Your task to perform on an android device: open app "Google Chat" (install if not already installed) Image 0: 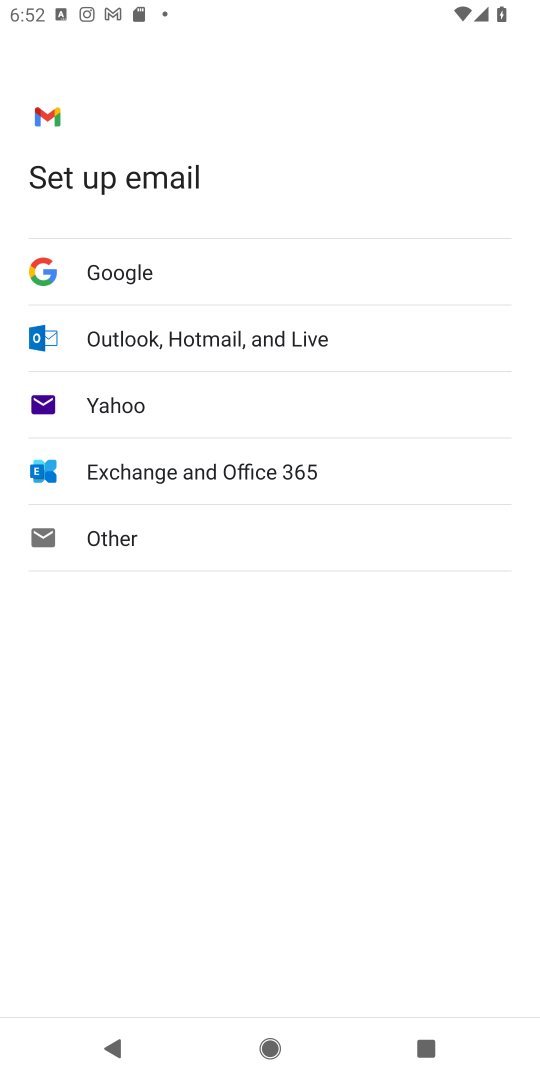
Step 0: press home button
Your task to perform on an android device: open app "Google Chat" (install if not already installed) Image 1: 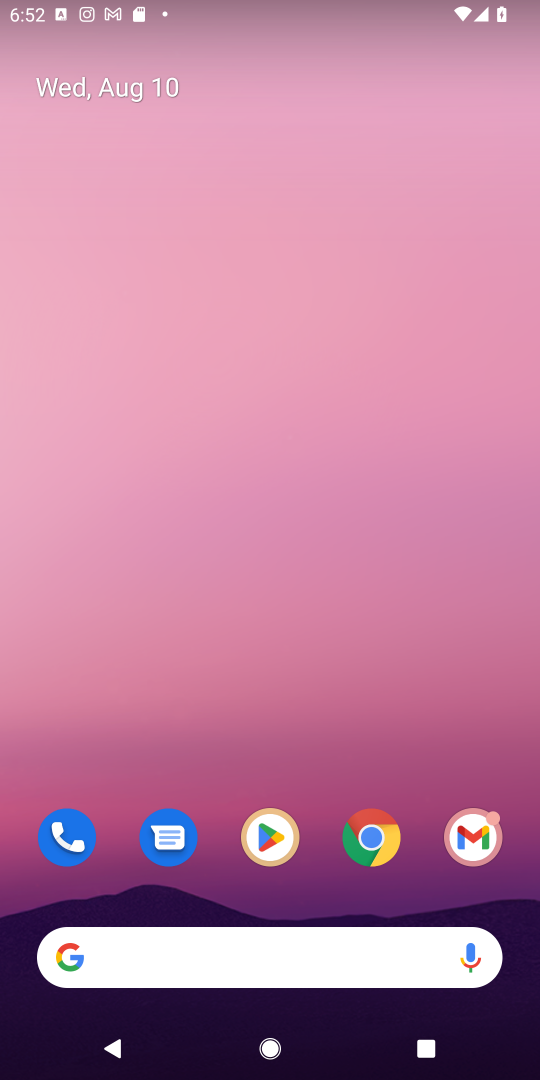
Step 1: click (271, 833)
Your task to perform on an android device: open app "Google Chat" (install if not already installed) Image 2: 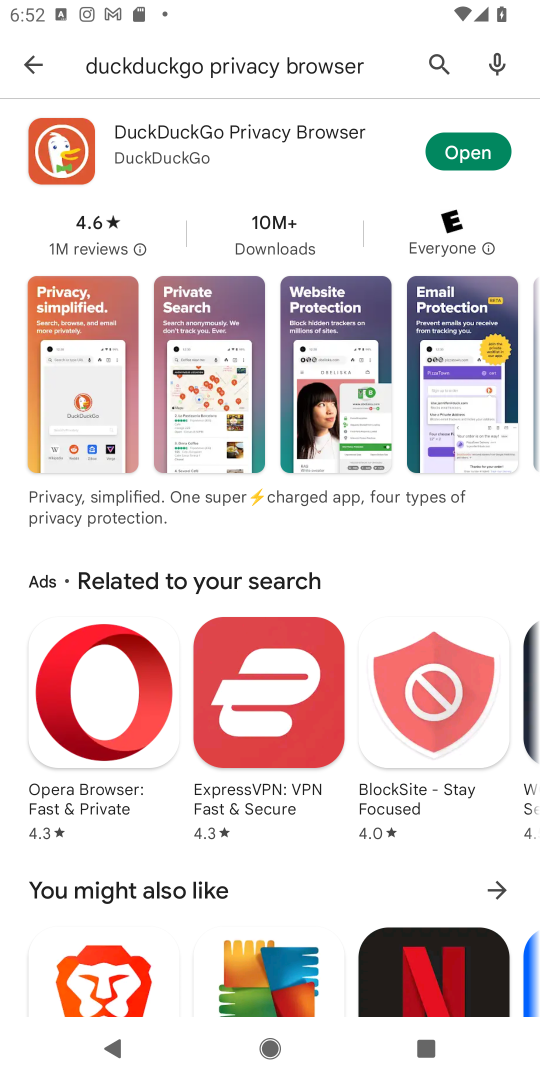
Step 2: click (438, 52)
Your task to perform on an android device: open app "Google Chat" (install if not already installed) Image 3: 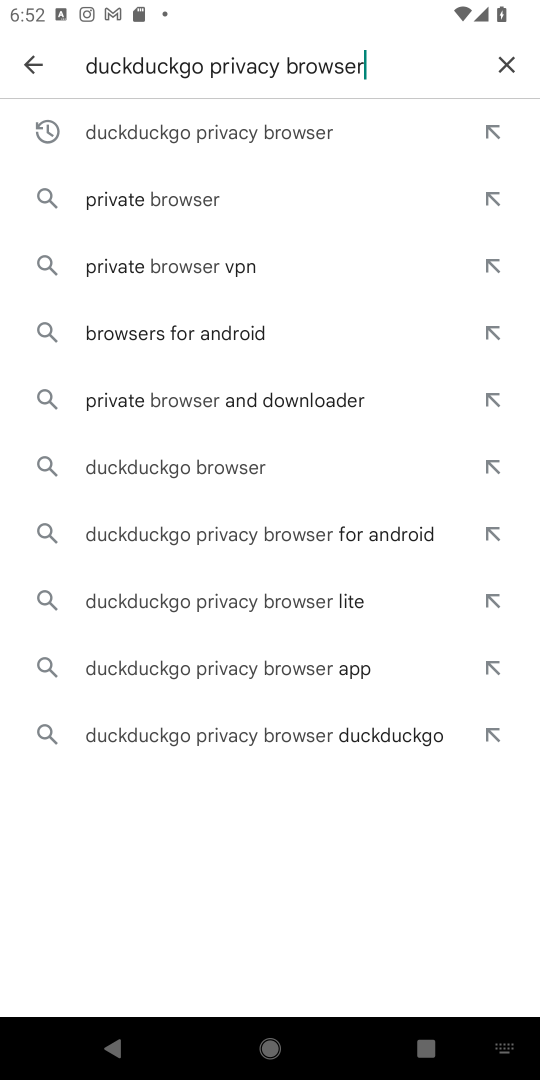
Step 3: click (501, 65)
Your task to perform on an android device: open app "Google Chat" (install if not already installed) Image 4: 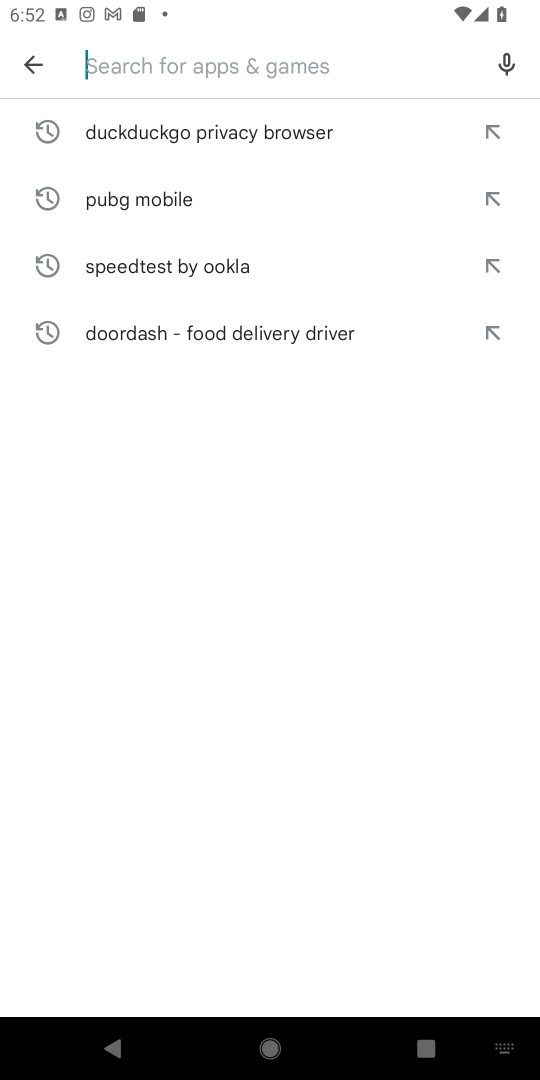
Step 4: type "Google Chat"
Your task to perform on an android device: open app "Google Chat" (install if not already installed) Image 5: 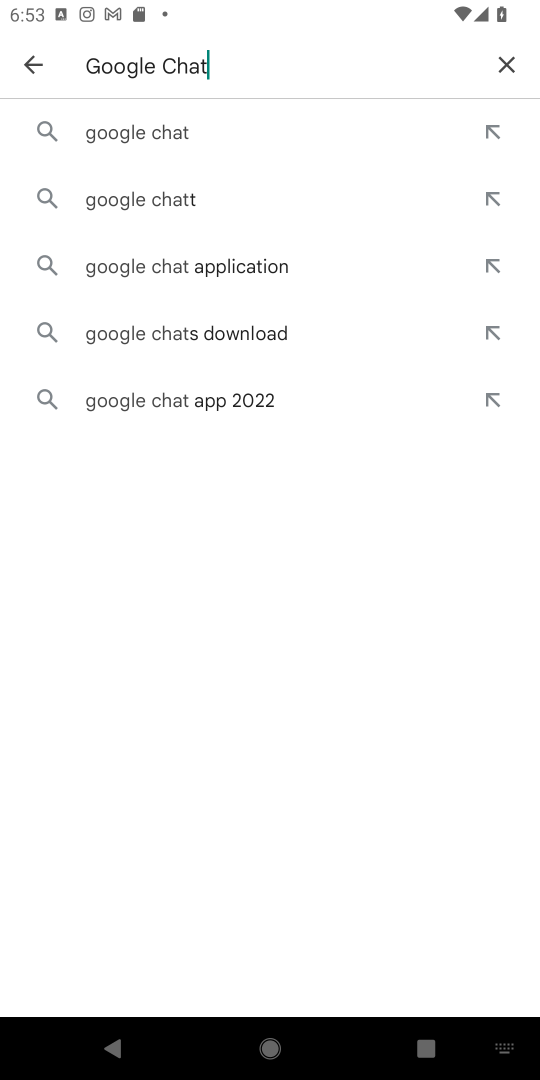
Step 5: click (140, 136)
Your task to perform on an android device: open app "Google Chat" (install if not already installed) Image 6: 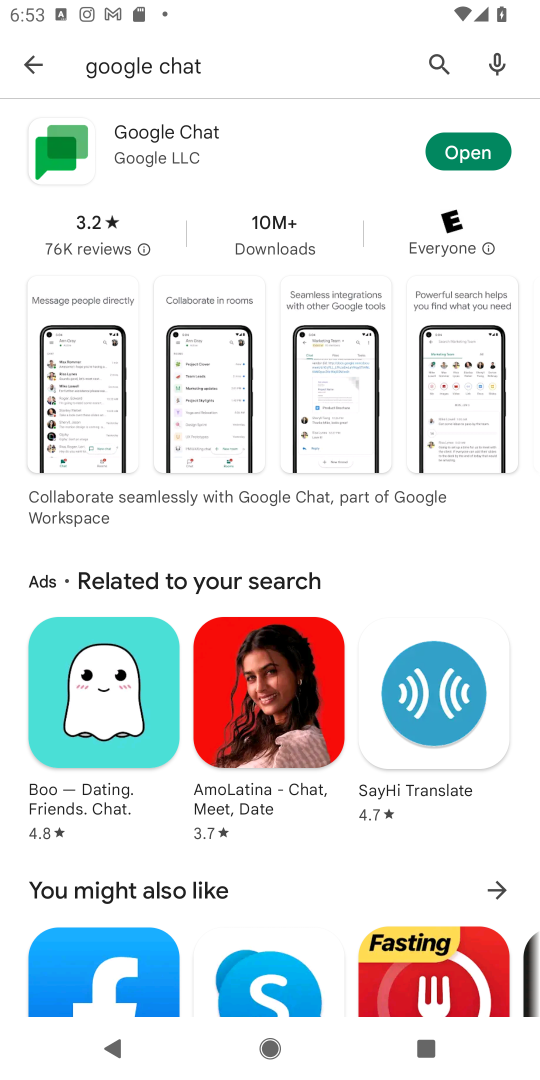
Step 6: click (462, 154)
Your task to perform on an android device: open app "Google Chat" (install if not already installed) Image 7: 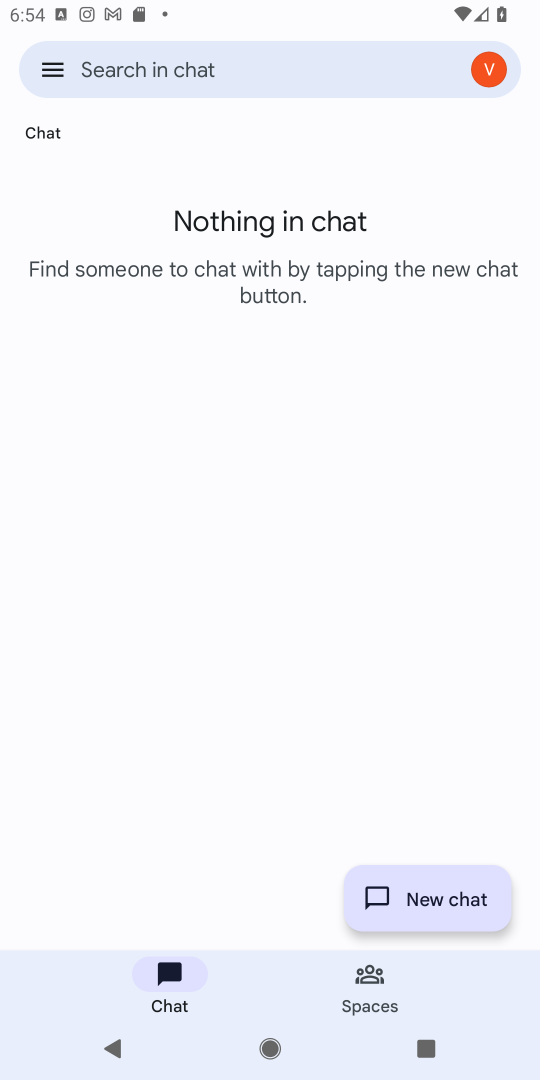
Step 7: task complete